Your task to perform on an android device: all mails in gmail Image 0: 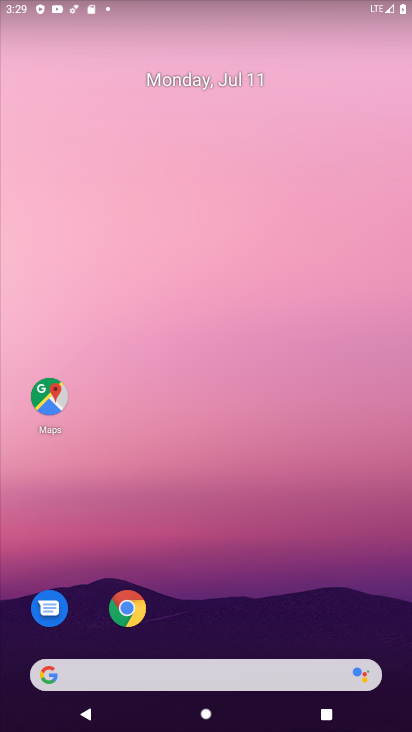
Step 0: drag from (243, 642) to (207, 35)
Your task to perform on an android device: all mails in gmail Image 1: 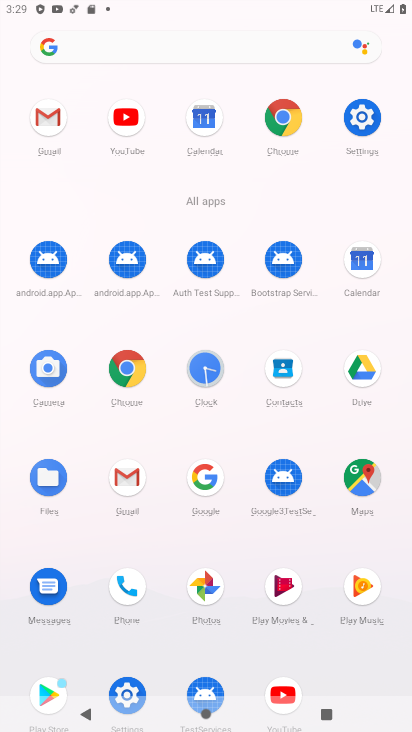
Step 1: click (44, 112)
Your task to perform on an android device: all mails in gmail Image 2: 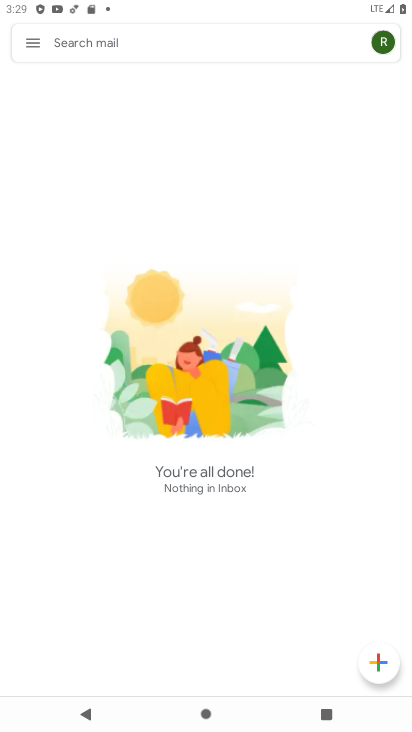
Step 2: click (30, 46)
Your task to perform on an android device: all mails in gmail Image 3: 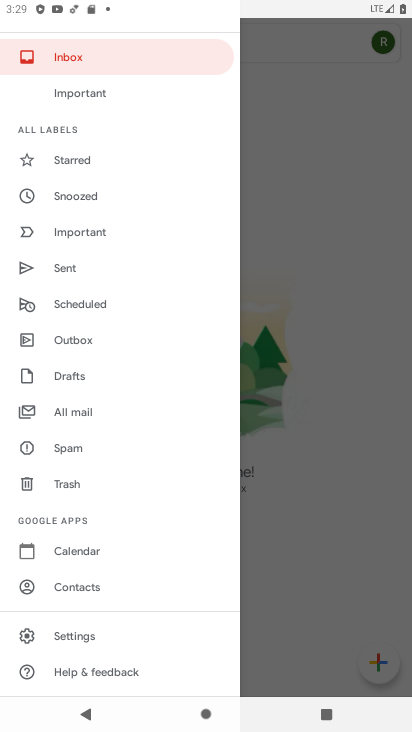
Step 3: click (72, 419)
Your task to perform on an android device: all mails in gmail Image 4: 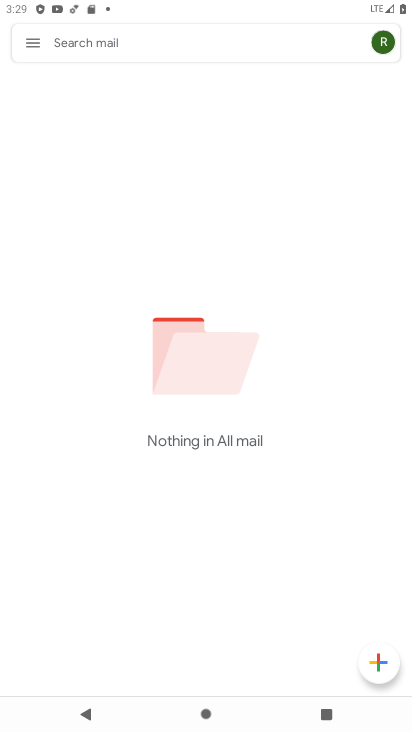
Step 4: task complete